Your task to perform on an android device: Open notification settings Image 0: 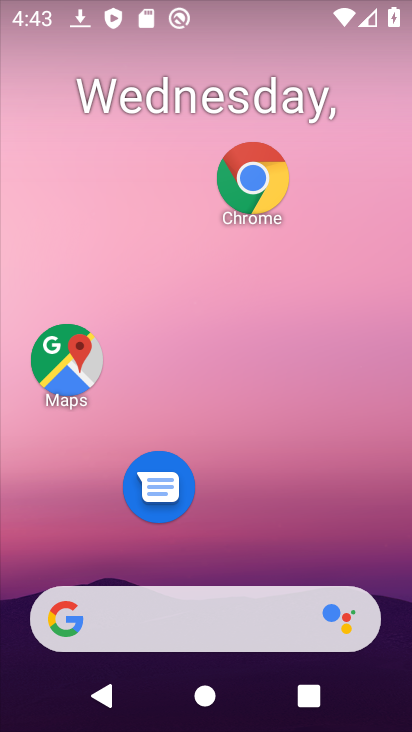
Step 0: drag from (305, 434) to (204, 83)
Your task to perform on an android device: Open notification settings Image 1: 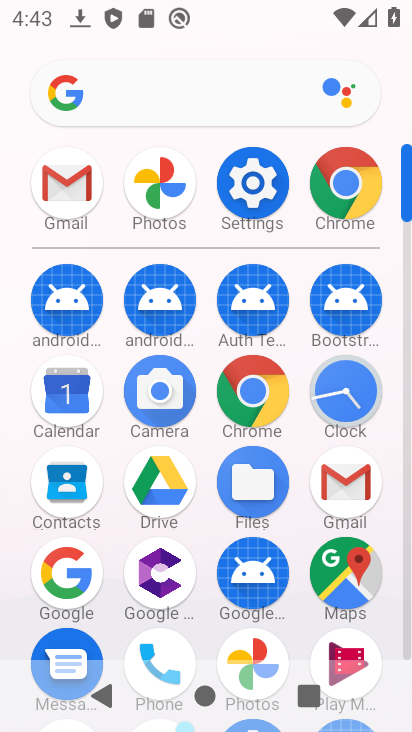
Step 1: click (256, 191)
Your task to perform on an android device: Open notification settings Image 2: 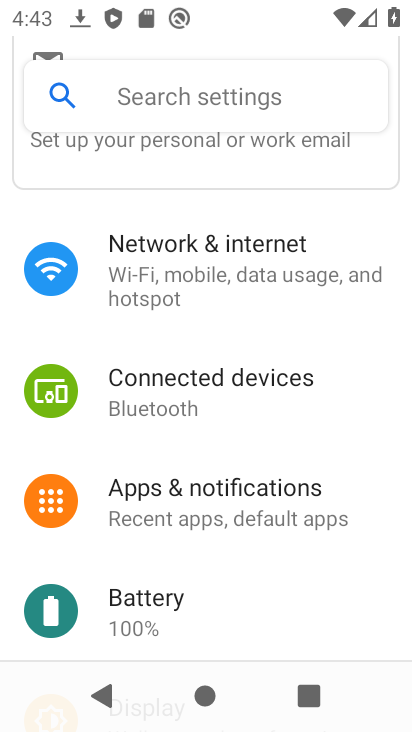
Step 2: click (257, 512)
Your task to perform on an android device: Open notification settings Image 3: 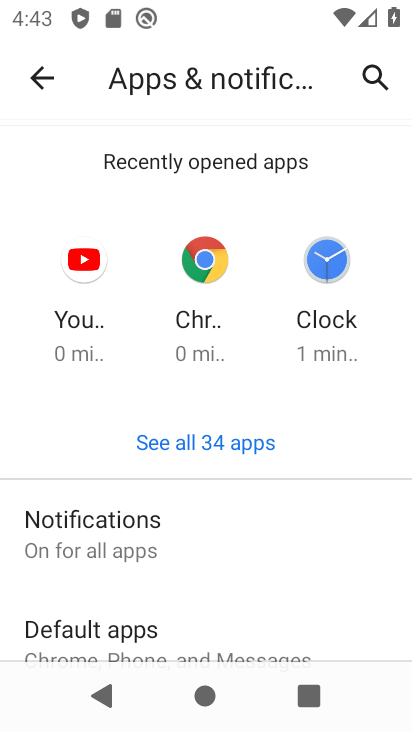
Step 3: click (139, 525)
Your task to perform on an android device: Open notification settings Image 4: 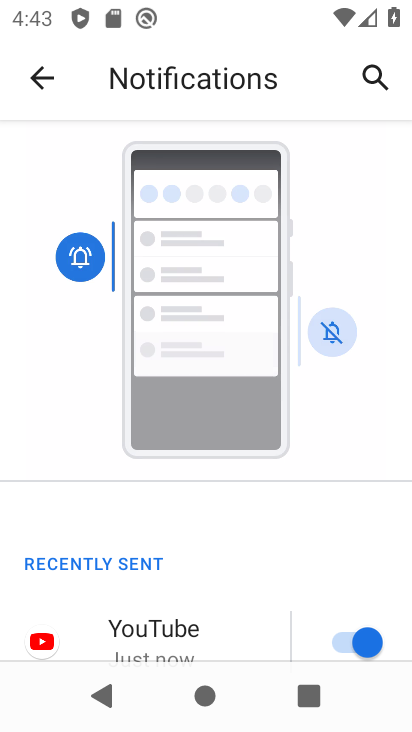
Step 4: task complete